Your task to perform on an android device: choose inbox layout in the gmail app Image 0: 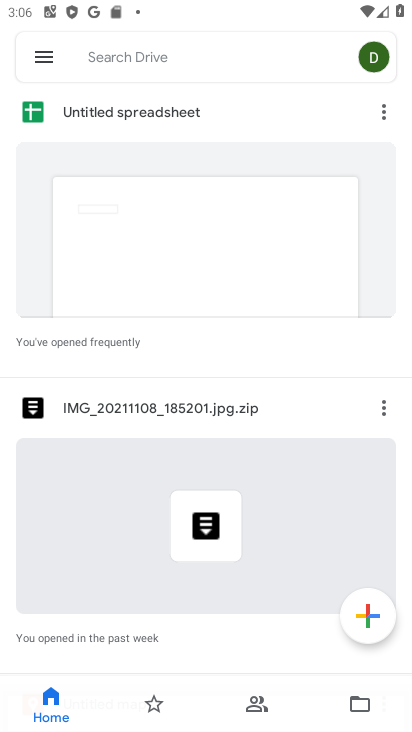
Step 0: press home button
Your task to perform on an android device: choose inbox layout in the gmail app Image 1: 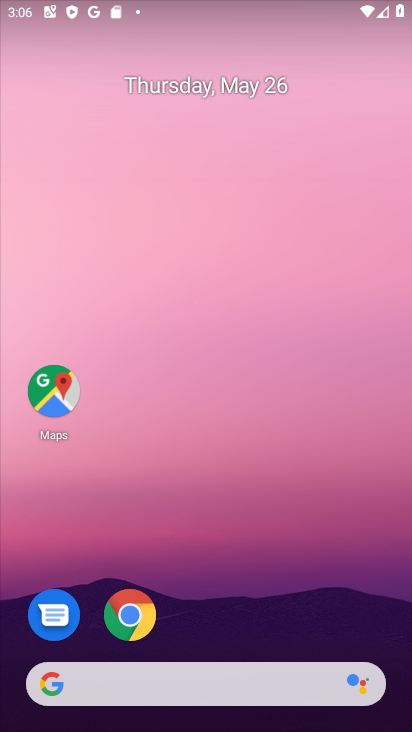
Step 1: drag from (211, 603) to (279, 86)
Your task to perform on an android device: choose inbox layout in the gmail app Image 2: 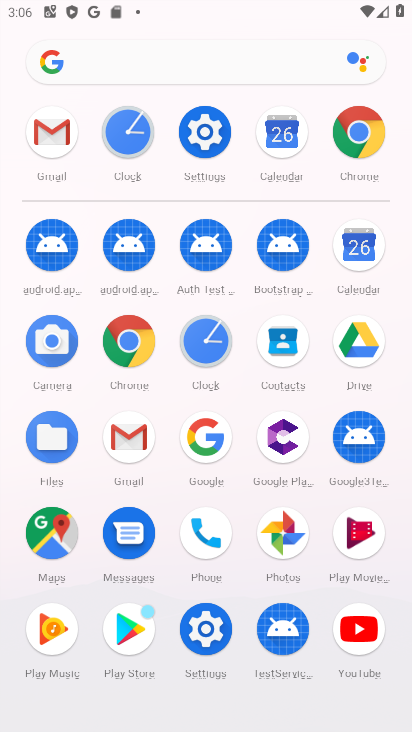
Step 2: click (57, 162)
Your task to perform on an android device: choose inbox layout in the gmail app Image 3: 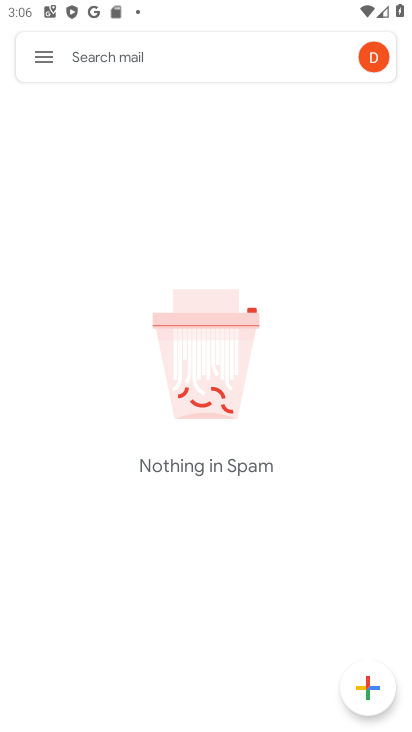
Step 3: click (37, 59)
Your task to perform on an android device: choose inbox layout in the gmail app Image 4: 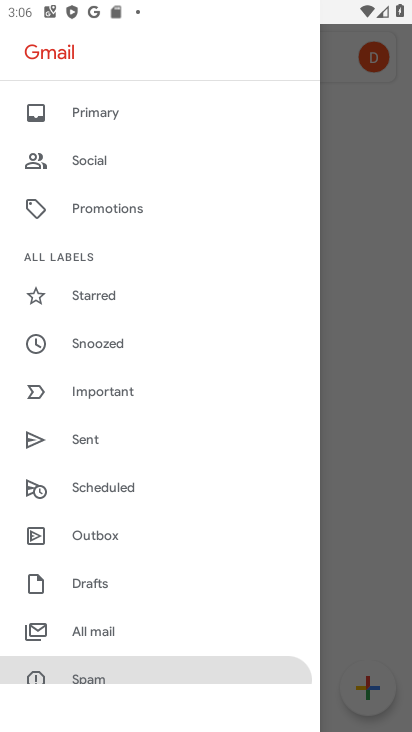
Step 4: drag from (101, 630) to (118, 381)
Your task to perform on an android device: choose inbox layout in the gmail app Image 5: 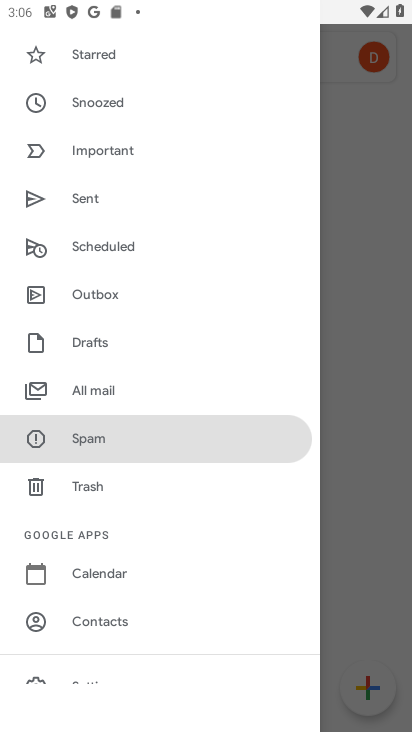
Step 5: drag from (75, 611) to (87, 387)
Your task to perform on an android device: choose inbox layout in the gmail app Image 6: 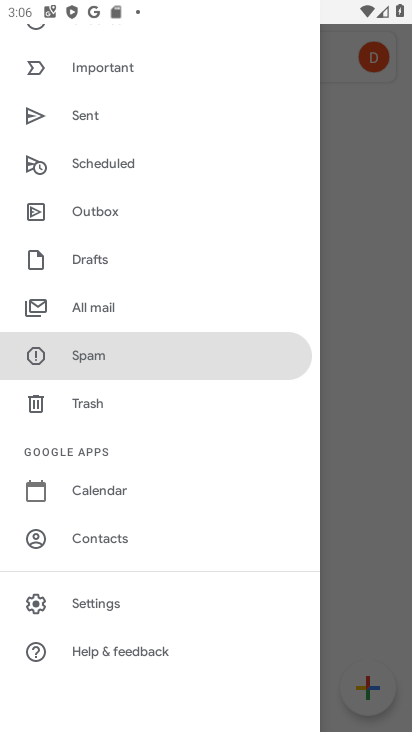
Step 6: click (74, 608)
Your task to perform on an android device: choose inbox layout in the gmail app Image 7: 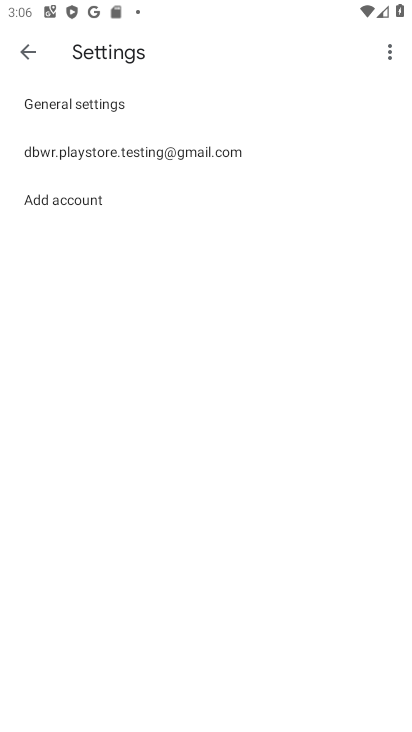
Step 7: click (150, 151)
Your task to perform on an android device: choose inbox layout in the gmail app Image 8: 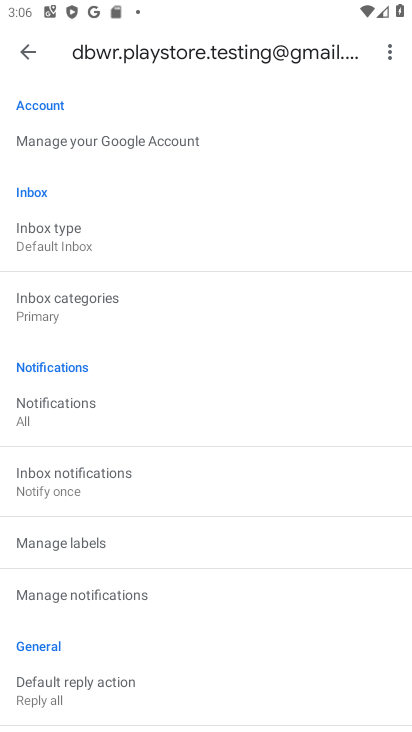
Step 8: click (51, 256)
Your task to perform on an android device: choose inbox layout in the gmail app Image 9: 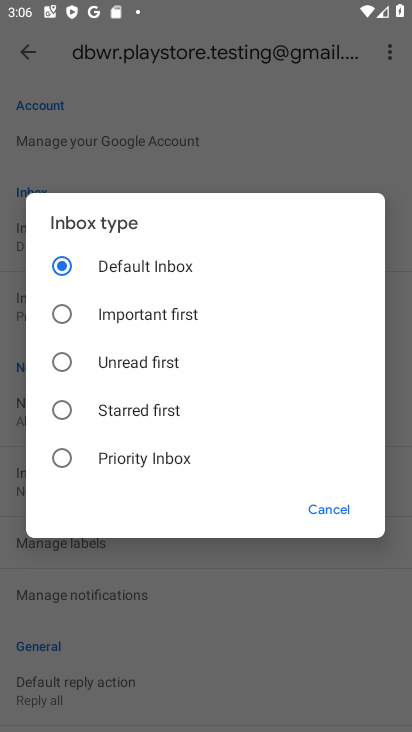
Step 9: click (63, 464)
Your task to perform on an android device: choose inbox layout in the gmail app Image 10: 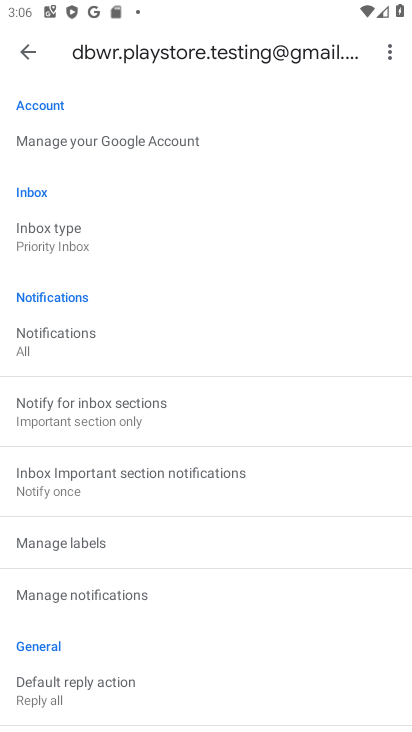
Step 10: task complete